Your task to perform on an android device: Go to Yahoo.com Image 0: 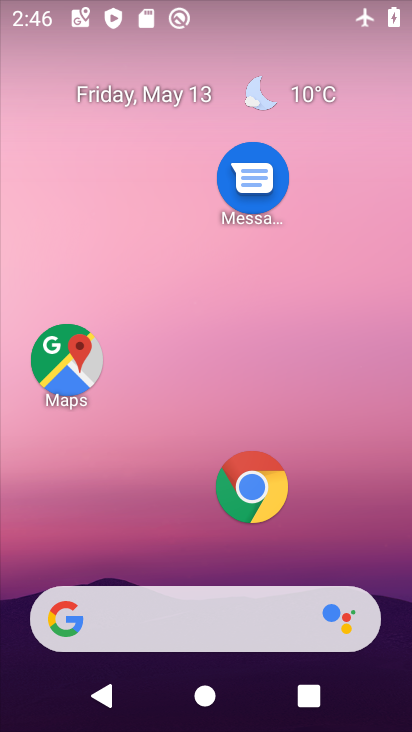
Step 0: click (258, 495)
Your task to perform on an android device: Go to Yahoo.com Image 1: 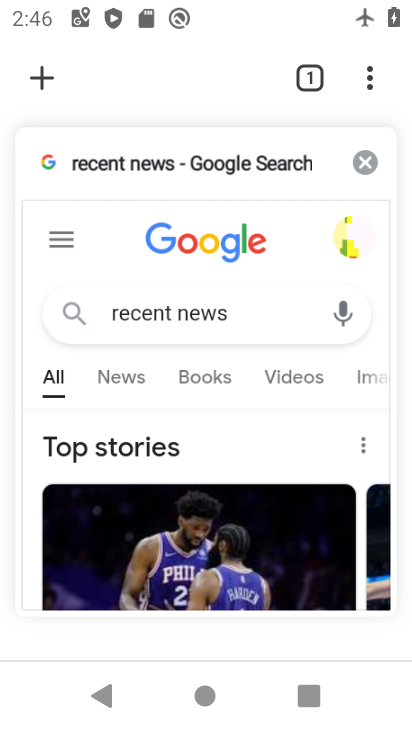
Step 1: click (141, 168)
Your task to perform on an android device: Go to Yahoo.com Image 2: 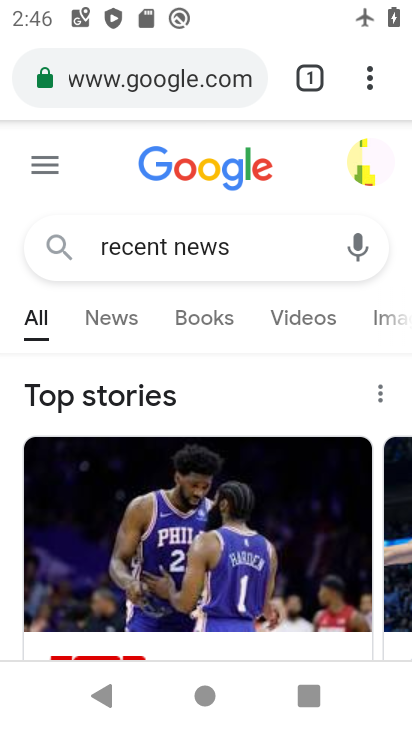
Step 2: click (152, 84)
Your task to perform on an android device: Go to Yahoo.com Image 3: 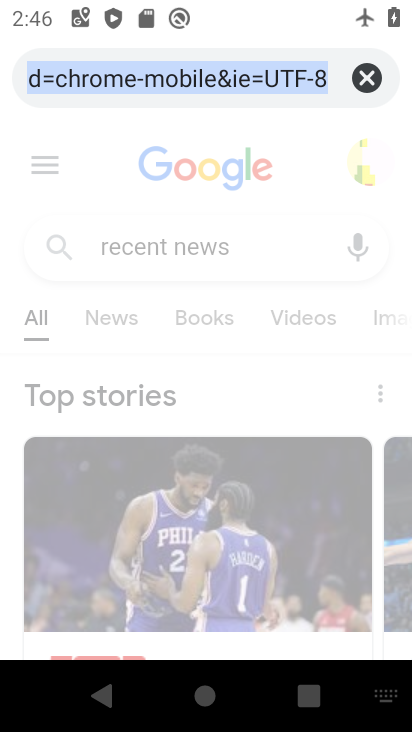
Step 3: type "yahoo.com"
Your task to perform on an android device: Go to Yahoo.com Image 4: 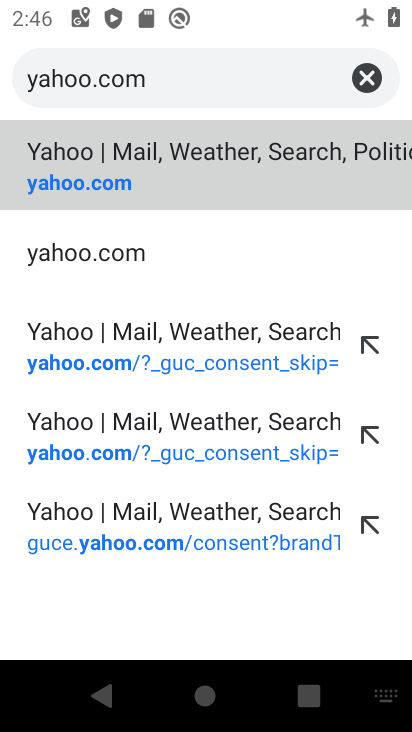
Step 4: click (240, 251)
Your task to perform on an android device: Go to Yahoo.com Image 5: 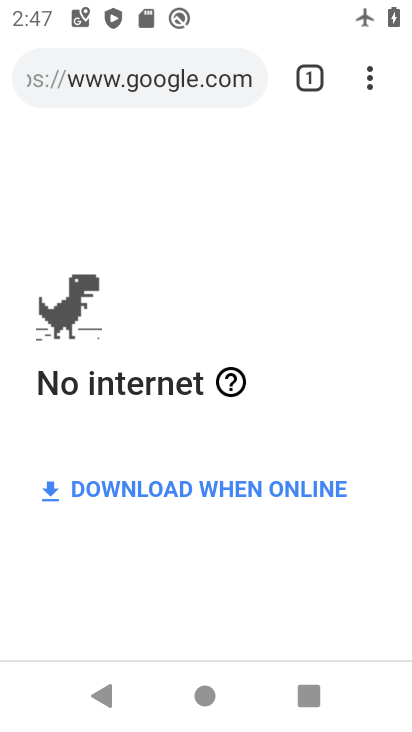
Step 5: task complete